Your task to perform on an android device: see tabs open on other devices in the chrome app Image 0: 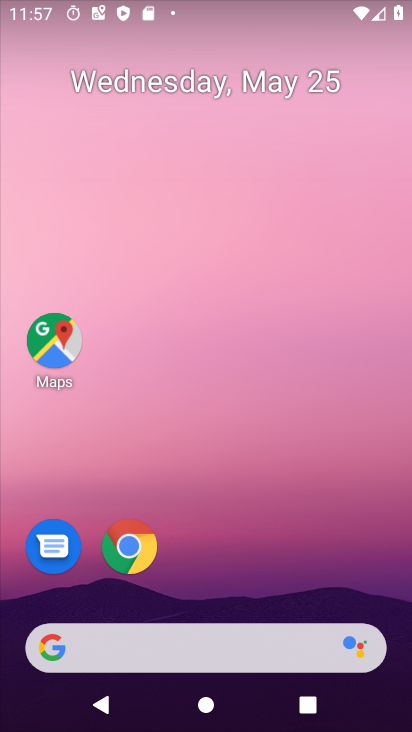
Step 0: click (119, 549)
Your task to perform on an android device: see tabs open on other devices in the chrome app Image 1: 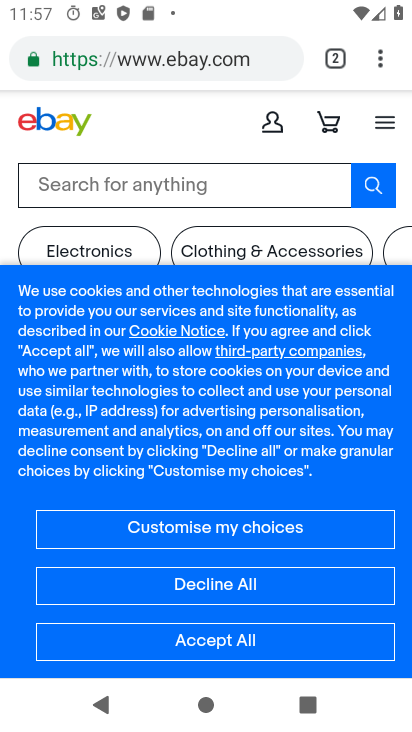
Step 1: click (386, 60)
Your task to perform on an android device: see tabs open on other devices in the chrome app Image 2: 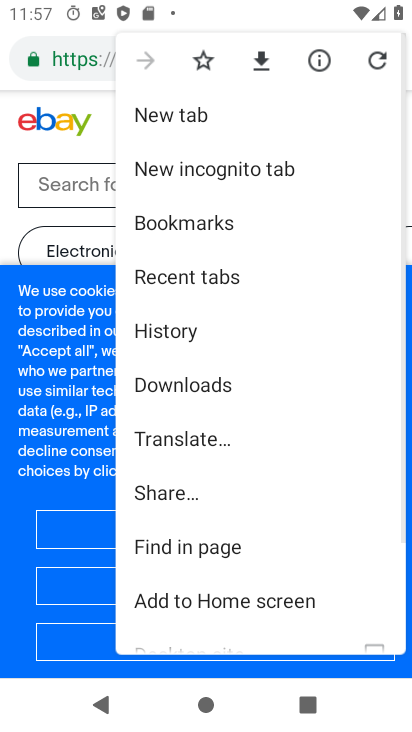
Step 2: click (168, 279)
Your task to perform on an android device: see tabs open on other devices in the chrome app Image 3: 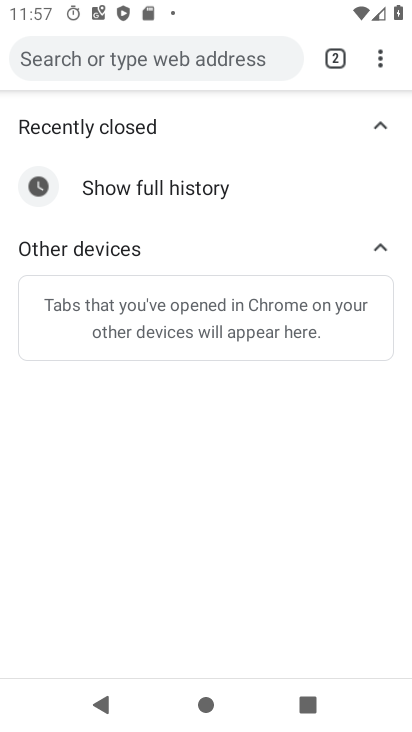
Step 3: task complete